Your task to perform on an android device: clear history in the chrome app Image 0: 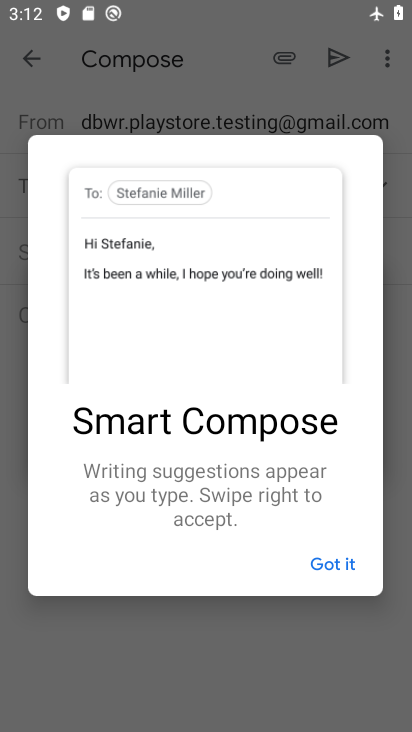
Step 0: press home button
Your task to perform on an android device: clear history in the chrome app Image 1: 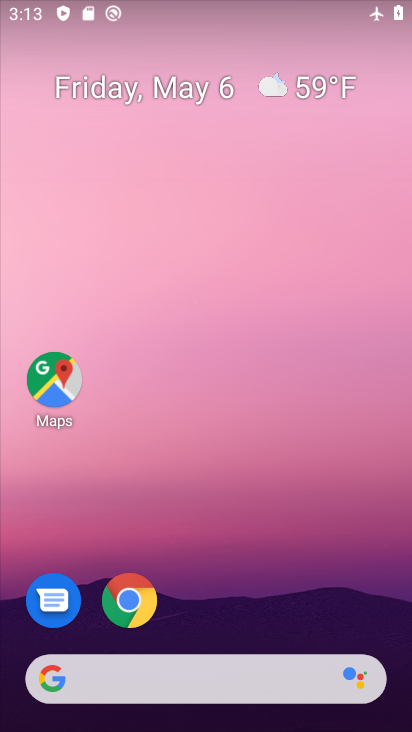
Step 1: click (140, 609)
Your task to perform on an android device: clear history in the chrome app Image 2: 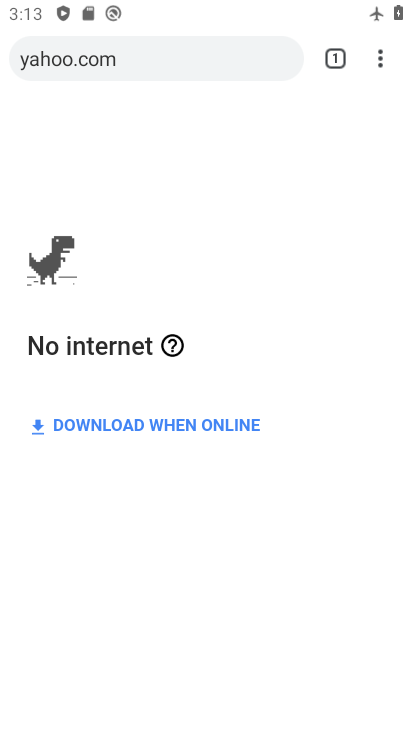
Step 2: click (382, 68)
Your task to perform on an android device: clear history in the chrome app Image 3: 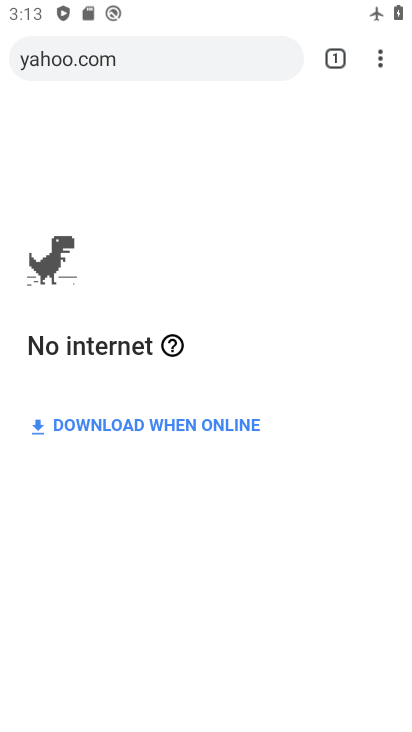
Step 3: click (384, 67)
Your task to perform on an android device: clear history in the chrome app Image 4: 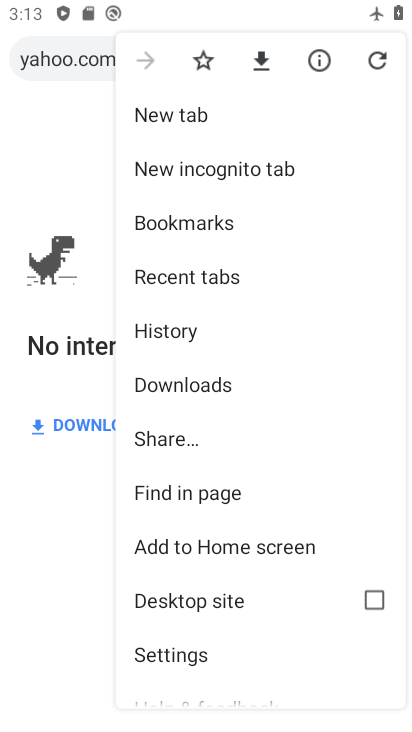
Step 4: click (213, 334)
Your task to perform on an android device: clear history in the chrome app Image 5: 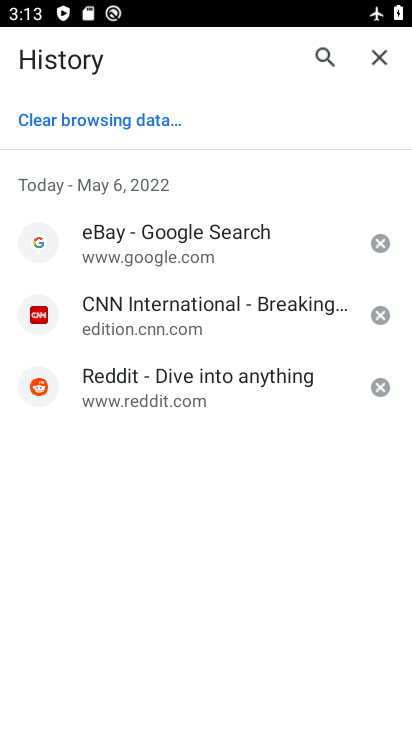
Step 5: click (102, 117)
Your task to perform on an android device: clear history in the chrome app Image 6: 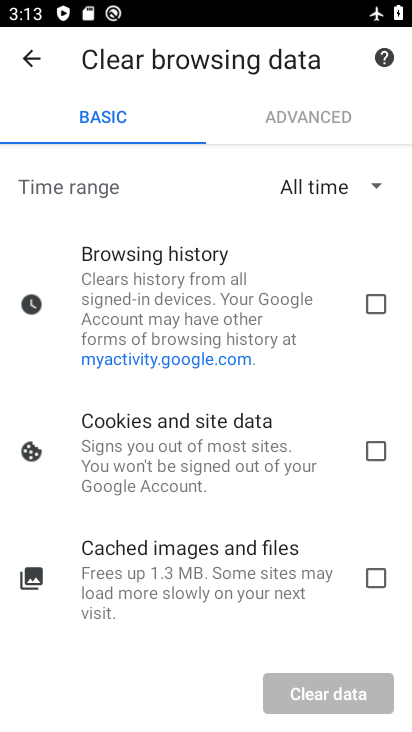
Step 6: click (369, 298)
Your task to perform on an android device: clear history in the chrome app Image 7: 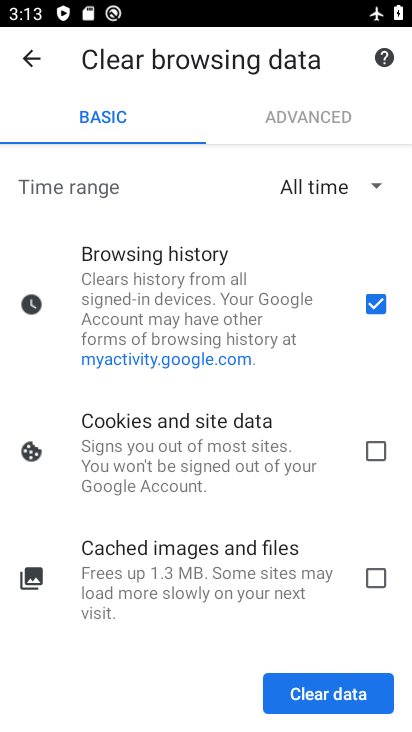
Step 7: task complete